Your task to perform on an android device: Open Yahoo.com Image 0: 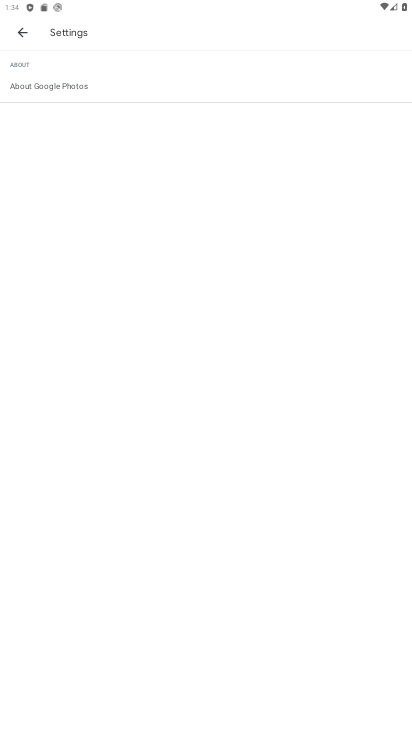
Step 0: press home button
Your task to perform on an android device: Open Yahoo.com Image 1: 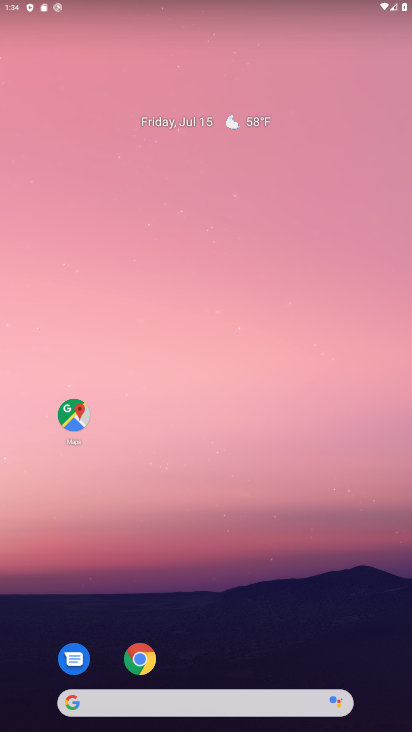
Step 1: click (145, 664)
Your task to perform on an android device: Open Yahoo.com Image 2: 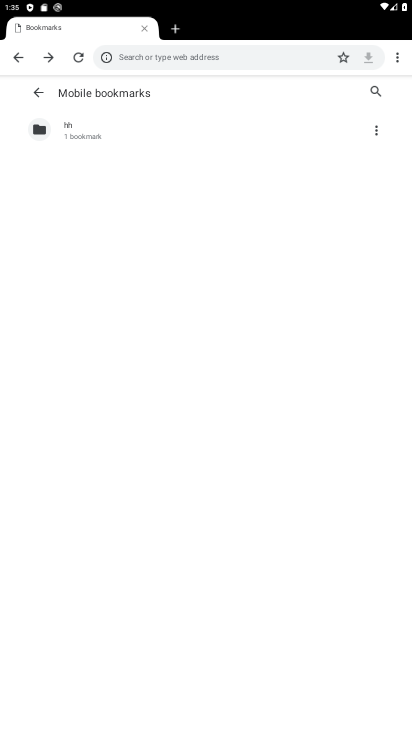
Step 2: click (169, 31)
Your task to perform on an android device: Open Yahoo.com Image 3: 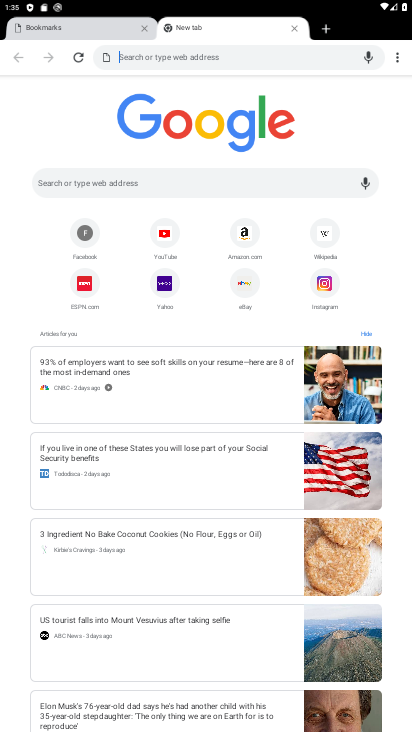
Step 3: click (169, 279)
Your task to perform on an android device: Open Yahoo.com Image 4: 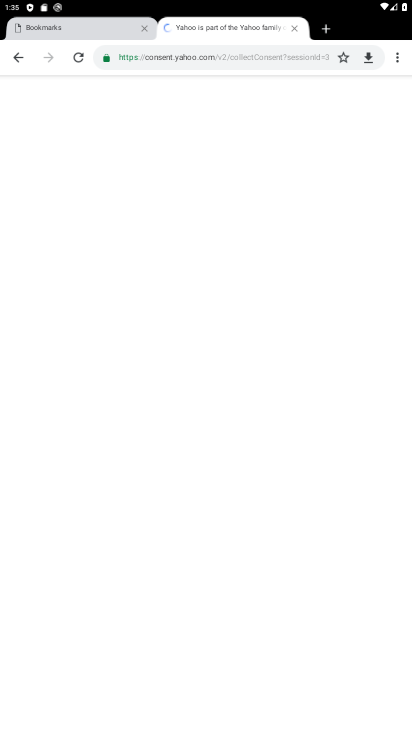
Step 4: task complete